Your task to perform on an android device: Open Google Image 0: 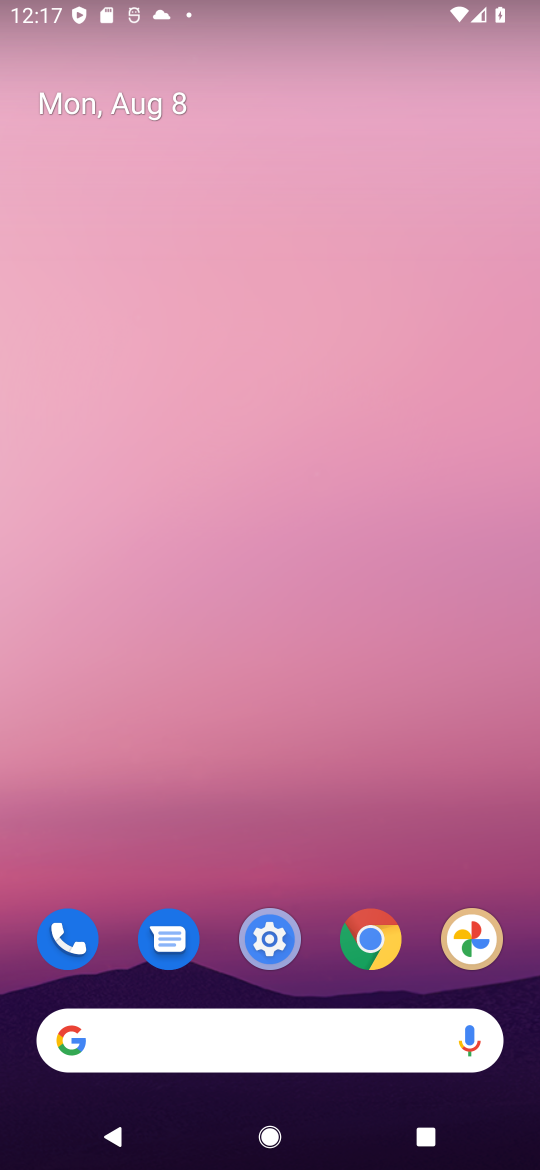
Step 0: drag from (228, 1060) to (417, 261)
Your task to perform on an android device: Open Google Image 1: 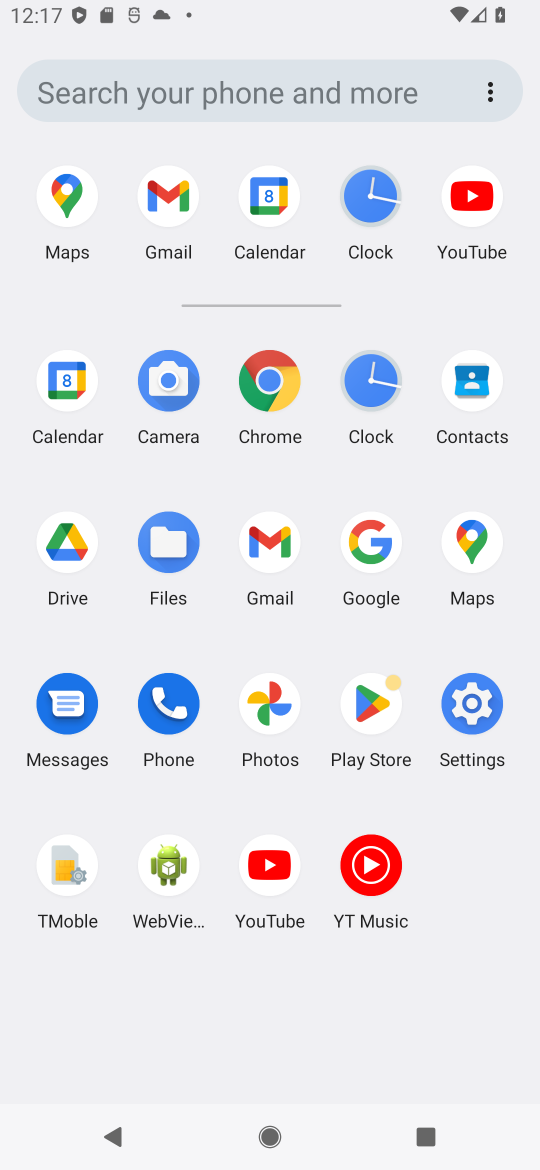
Step 1: click (369, 538)
Your task to perform on an android device: Open Google Image 2: 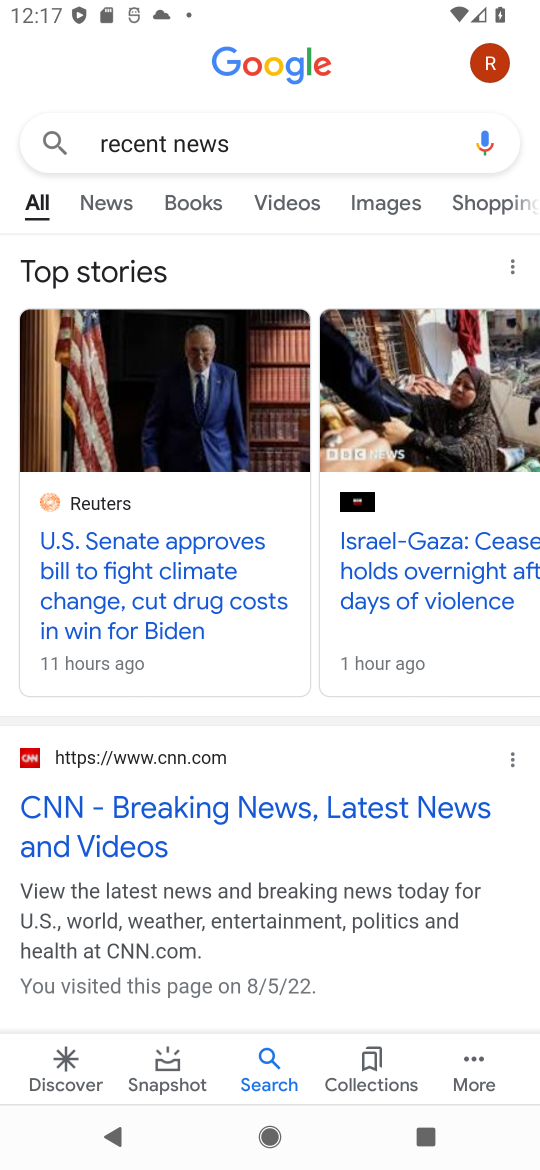
Step 2: task complete